Your task to perform on an android device: What's on my calendar tomorrow? Image 0: 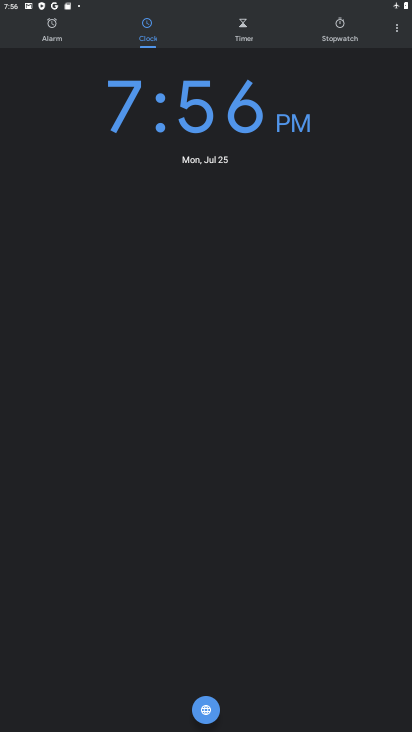
Step 0: drag from (259, 675) to (319, 233)
Your task to perform on an android device: What's on my calendar tomorrow? Image 1: 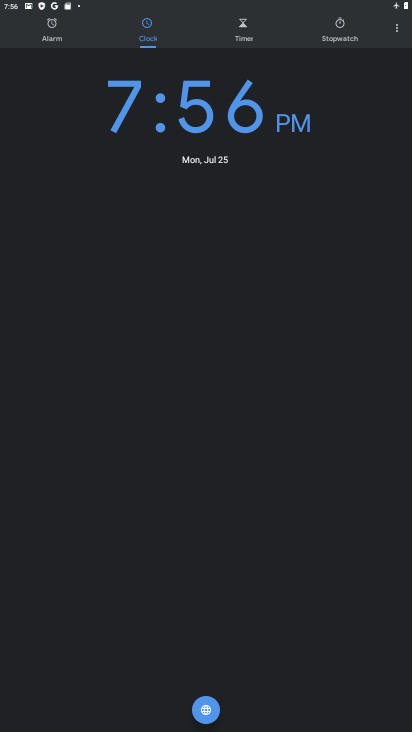
Step 1: press home button
Your task to perform on an android device: What's on my calendar tomorrow? Image 2: 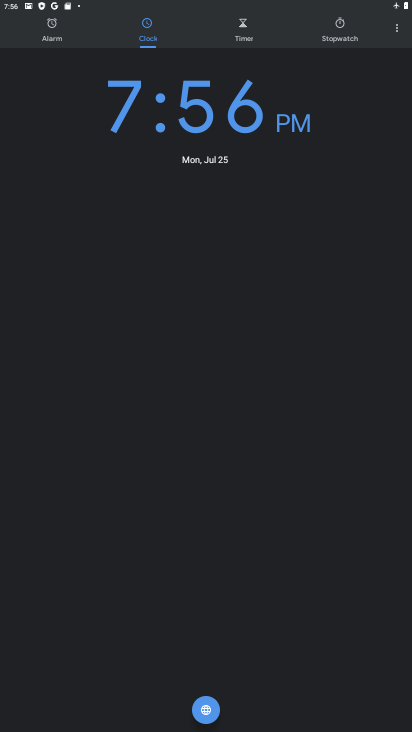
Step 2: press home button
Your task to perform on an android device: What's on my calendar tomorrow? Image 3: 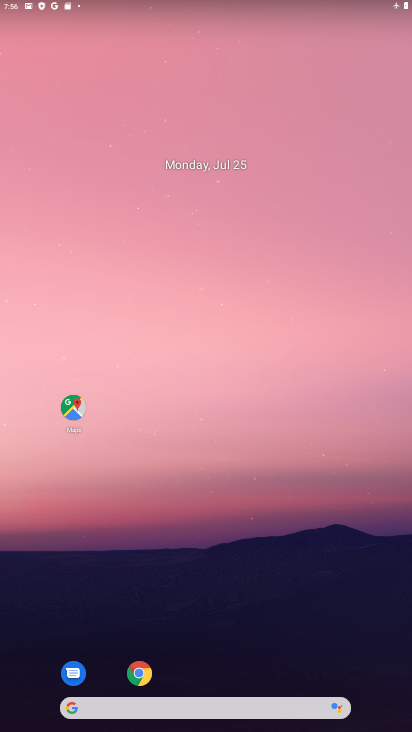
Step 3: drag from (185, 687) to (271, 167)
Your task to perform on an android device: What's on my calendar tomorrow? Image 4: 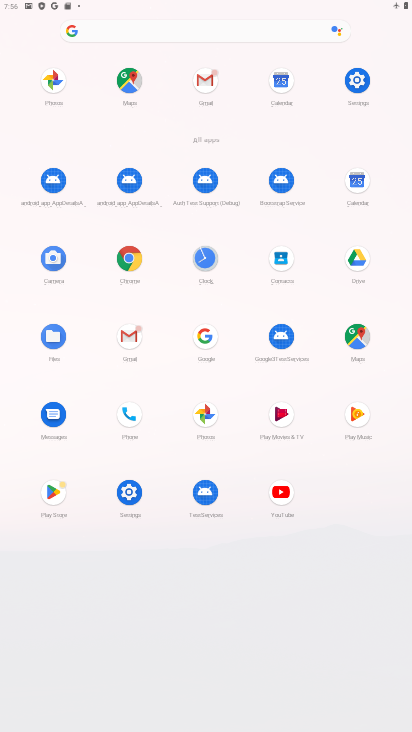
Step 4: click (349, 186)
Your task to perform on an android device: What's on my calendar tomorrow? Image 5: 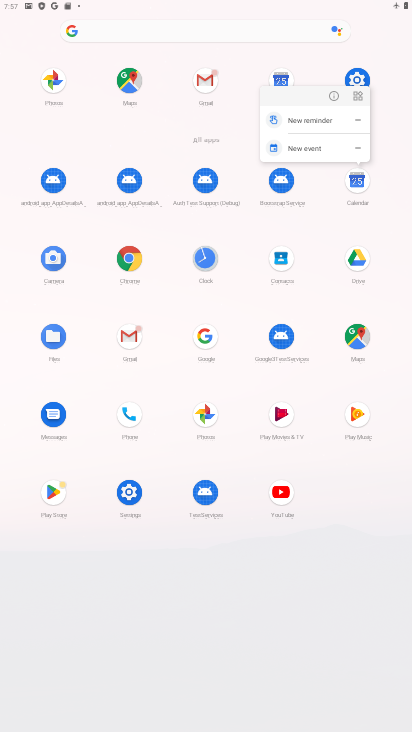
Step 5: click (328, 105)
Your task to perform on an android device: What's on my calendar tomorrow? Image 6: 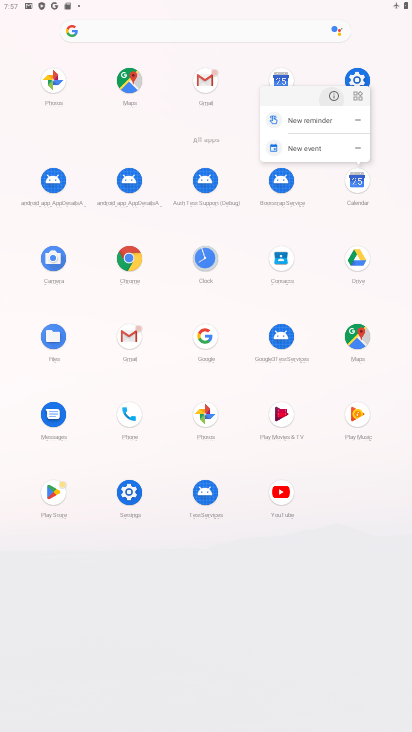
Step 6: click (329, 104)
Your task to perform on an android device: What's on my calendar tomorrow? Image 7: 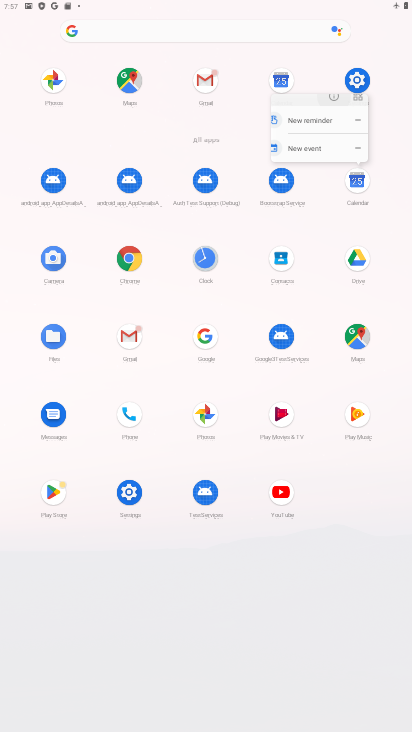
Step 7: click (329, 104)
Your task to perform on an android device: What's on my calendar tomorrow? Image 8: 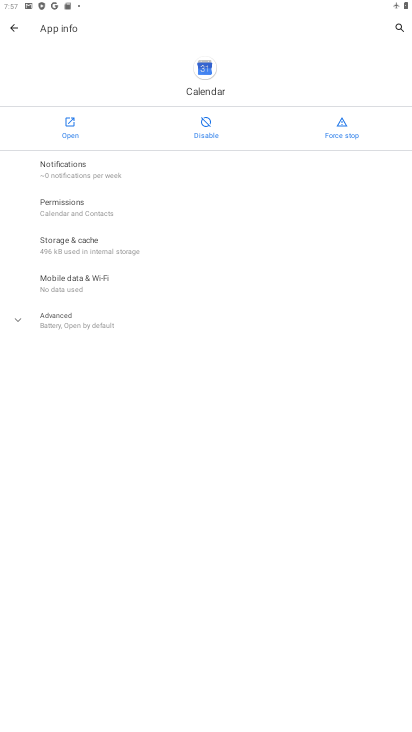
Step 8: drag from (195, 504) to (265, 157)
Your task to perform on an android device: What's on my calendar tomorrow? Image 9: 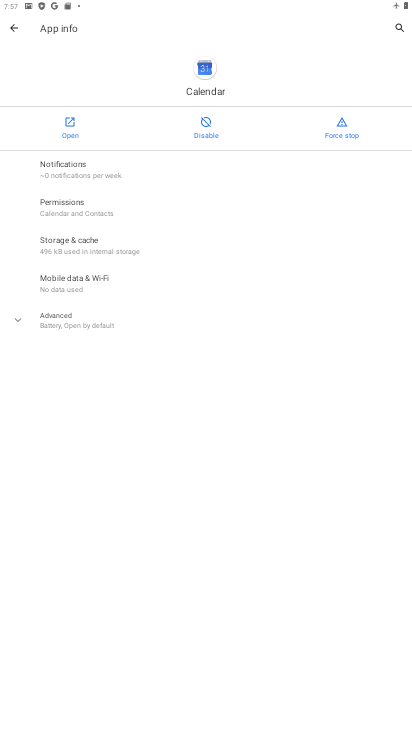
Step 9: click (82, 112)
Your task to perform on an android device: What's on my calendar tomorrow? Image 10: 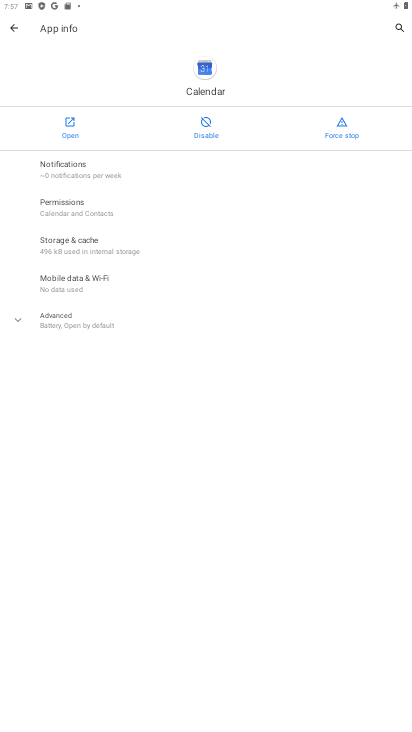
Step 10: click (76, 116)
Your task to perform on an android device: What's on my calendar tomorrow? Image 11: 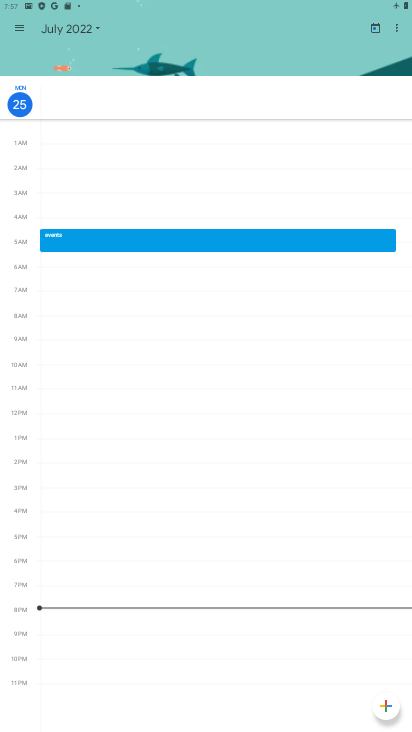
Step 11: click (70, 26)
Your task to perform on an android device: What's on my calendar tomorrow? Image 12: 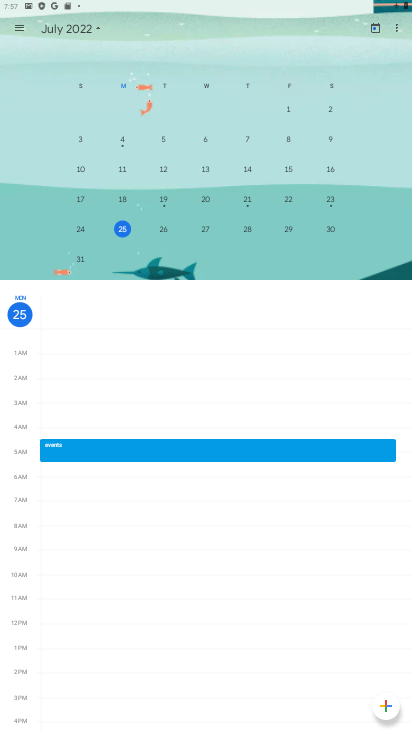
Step 12: click (158, 236)
Your task to perform on an android device: What's on my calendar tomorrow? Image 13: 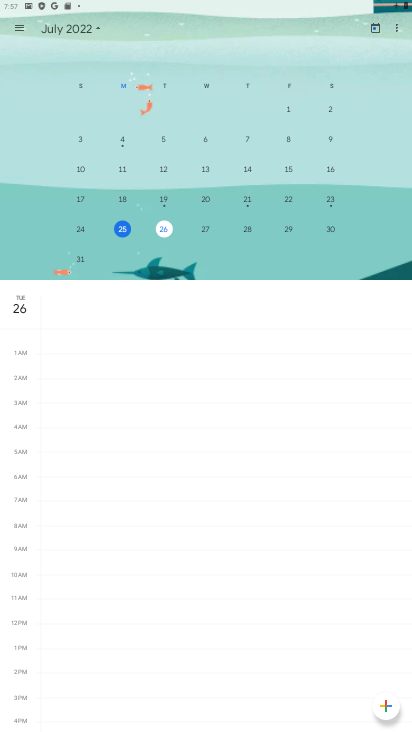
Step 13: task complete